Your task to perform on an android device: Open location settings Image 0: 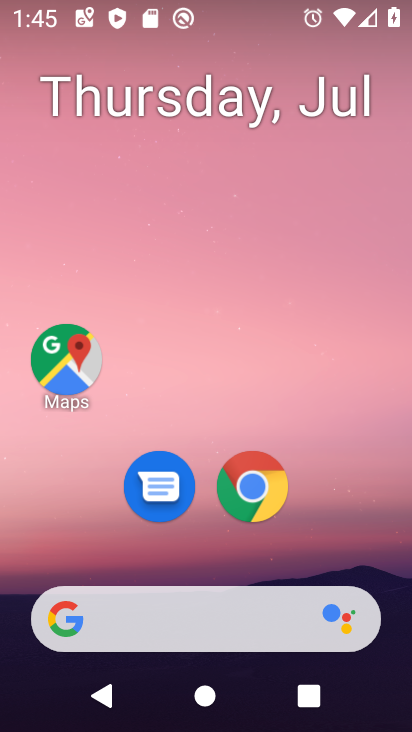
Step 0: drag from (172, 547) to (199, 59)
Your task to perform on an android device: Open location settings Image 1: 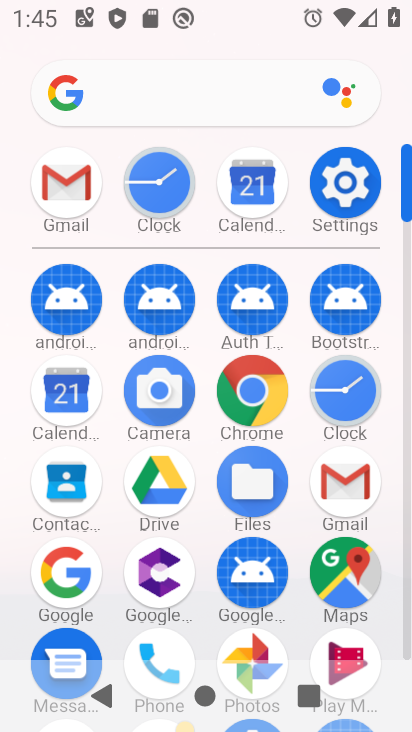
Step 1: click (351, 184)
Your task to perform on an android device: Open location settings Image 2: 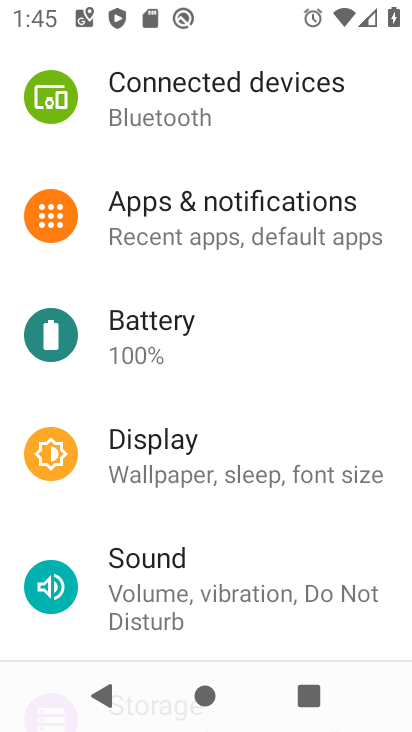
Step 2: drag from (162, 570) to (282, 173)
Your task to perform on an android device: Open location settings Image 3: 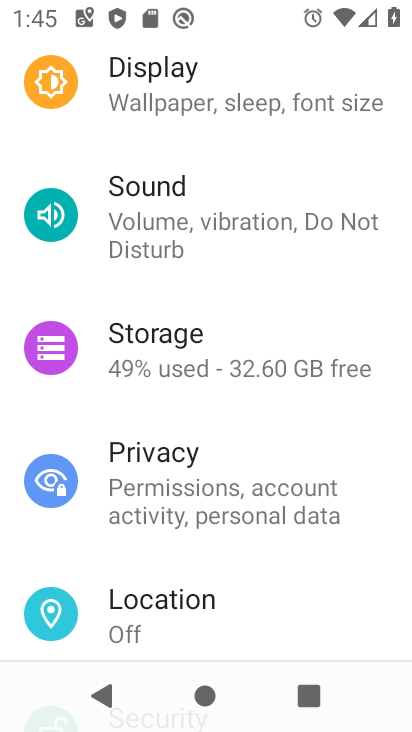
Step 3: click (190, 603)
Your task to perform on an android device: Open location settings Image 4: 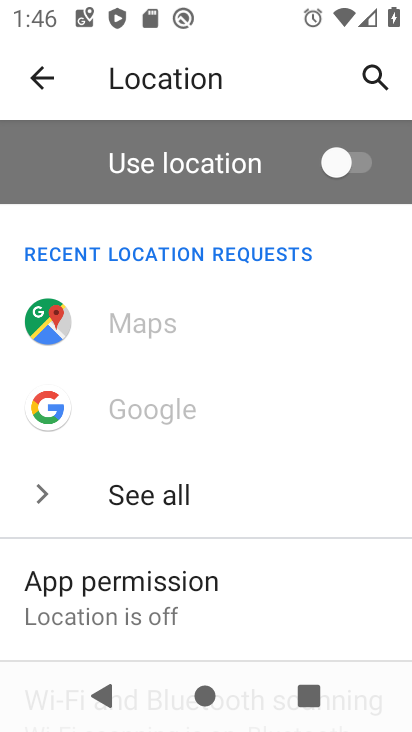
Step 4: task complete